Your task to perform on an android device: Go to privacy settings Image 0: 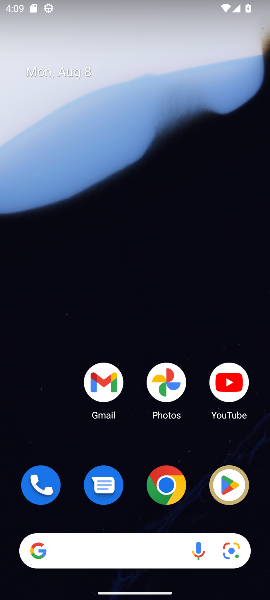
Step 0: drag from (161, 527) to (161, 177)
Your task to perform on an android device: Go to privacy settings Image 1: 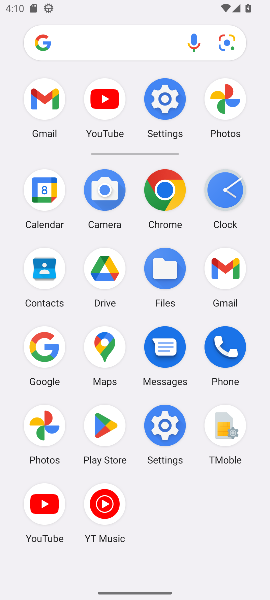
Step 1: click (164, 420)
Your task to perform on an android device: Go to privacy settings Image 2: 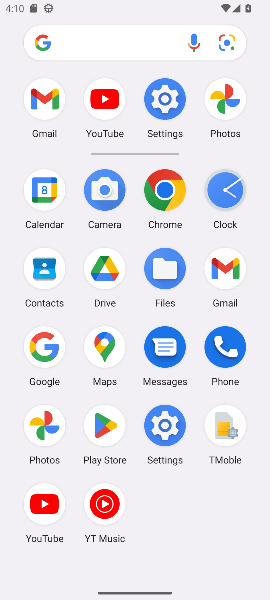
Step 2: click (164, 421)
Your task to perform on an android device: Go to privacy settings Image 3: 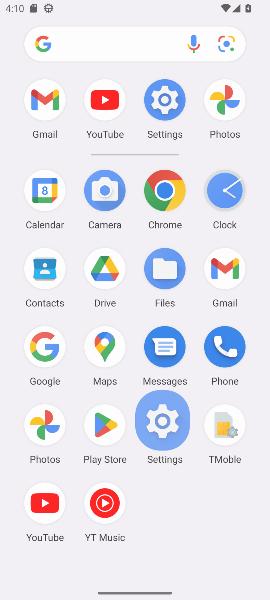
Step 3: click (164, 427)
Your task to perform on an android device: Go to privacy settings Image 4: 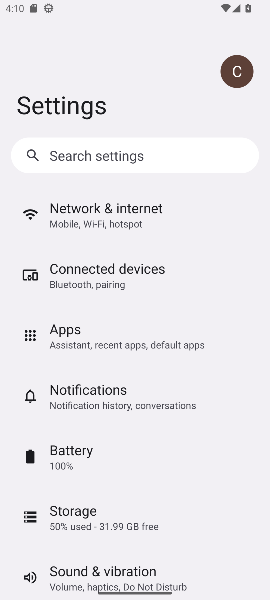
Step 4: drag from (79, 500) to (112, 116)
Your task to perform on an android device: Go to privacy settings Image 5: 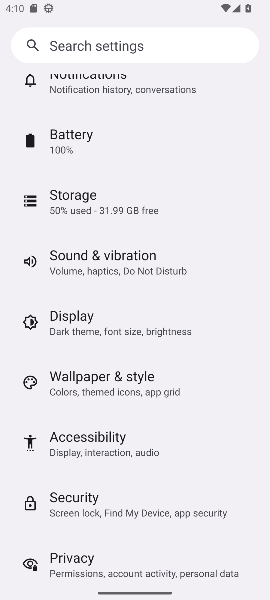
Step 5: drag from (154, 397) to (179, 205)
Your task to perform on an android device: Go to privacy settings Image 6: 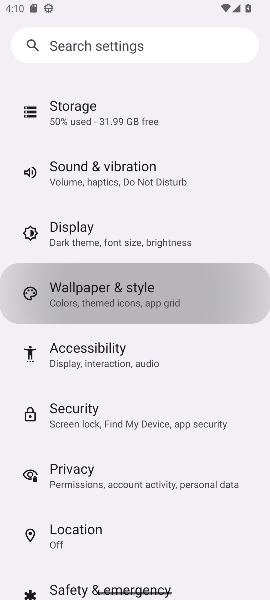
Step 6: drag from (185, 308) to (187, 184)
Your task to perform on an android device: Go to privacy settings Image 7: 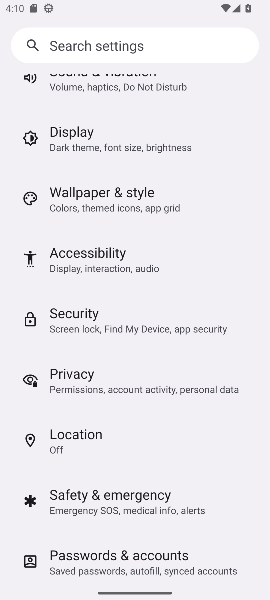
Step 7: click (73, 375)
Your task to perform on an android device: Go to privacy settings Image 8: 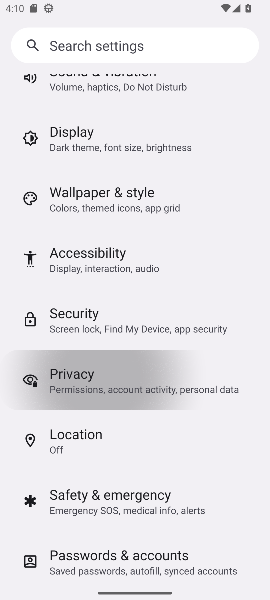
Step 8: click (73, 375)
Your task to perform on an android device: Go to privacy settings Image 9: 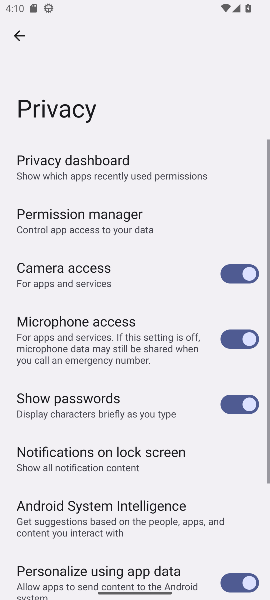
Step 9: click (81, 380)
Your task to perform on an android device: Go to privacy settings Image 10: 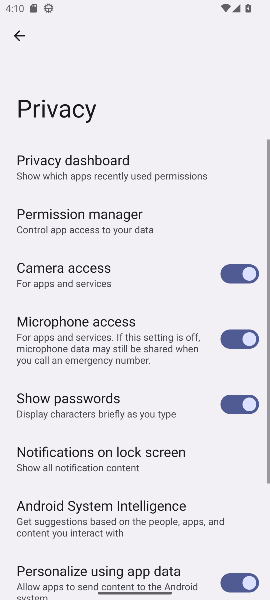
Step 10: click (81, 380)
Your task to perform on an android device: Go to privacy settings Image 11: 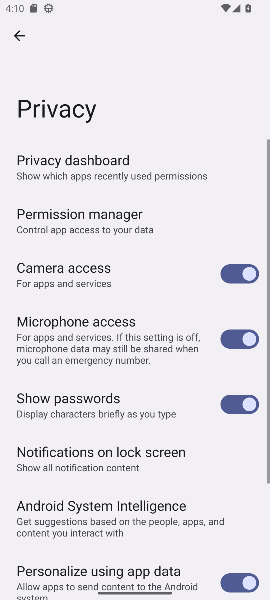
Step 11: task complete